Your task to perform on an android device: change the clock display to digital Image 0: 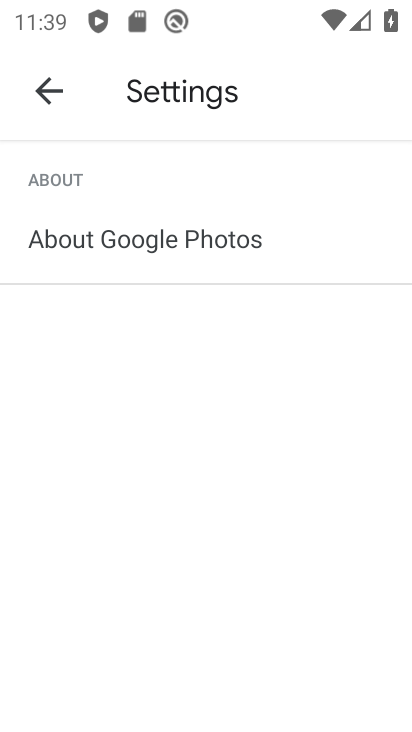
Step 0: press home button
Your task to perform on an android device: change the clock display to digital Image 1: 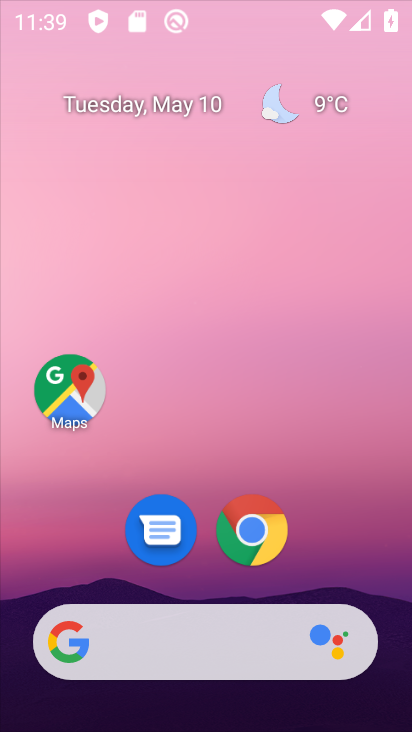
Step 1: drag from (345, 287) to (397, 0)
Your task to perform on an android device: change the clock display to digital Image 2: 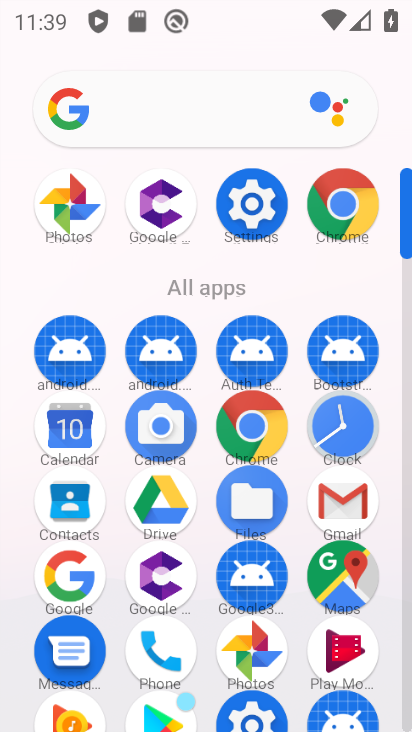
Step 2: click (368, 424)
Your task to perform on an android device: change the clock display to digital Image 3: 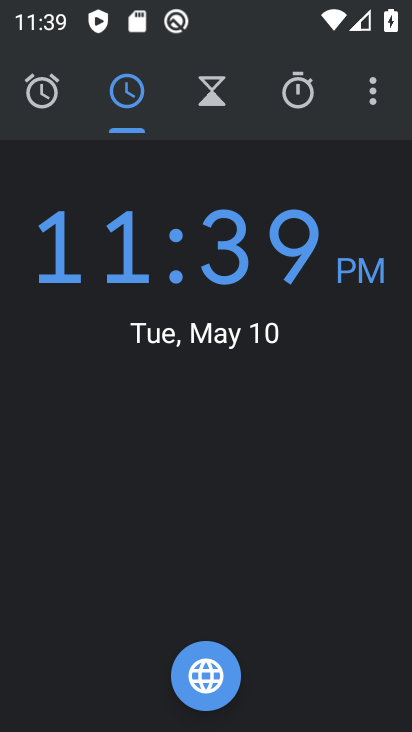
Step 3: click (374, 82)
Your task to perform on an android device: change the clock display to digital Image 4: 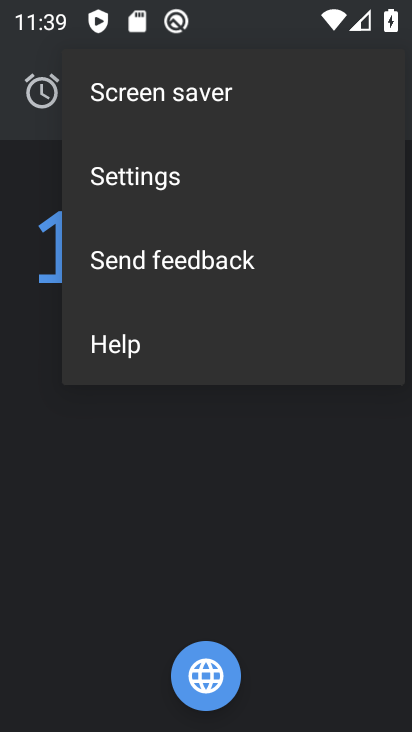
Step 4: click (238, 208)
Your task to perform on an android device: change the clock display to digital Image 5: 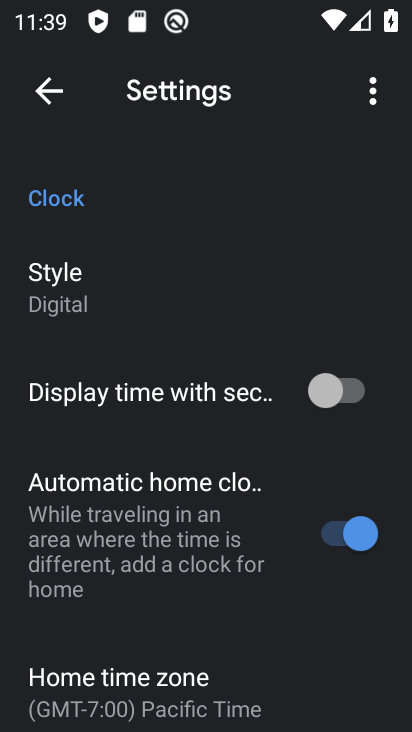
Step 5: click (107, 285)
Your task to perform on an android device: change the clock display to digital Image 6: 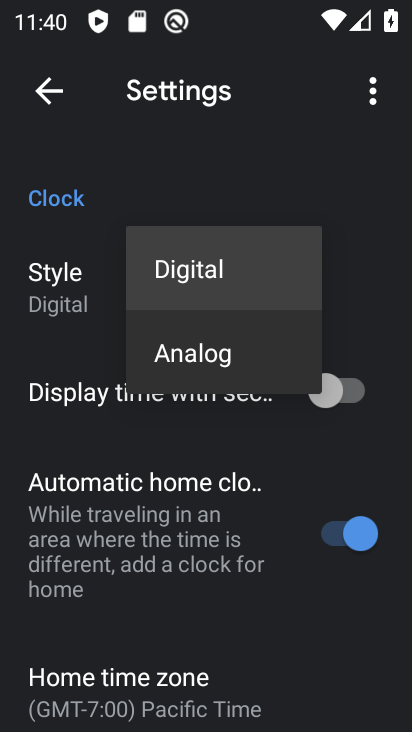
Step 6: click (190, 287)
Your task to perform on an android device: change the clock display to digital Image 7: 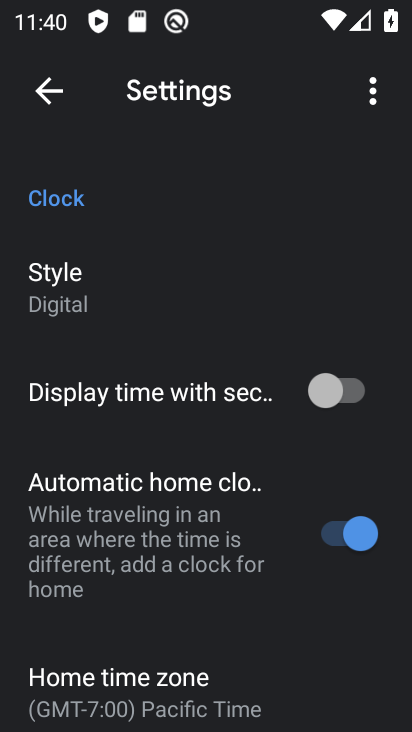
Step 7: task complete